Your task to perform on an android device: check the backup settings in the google photos Image 0: 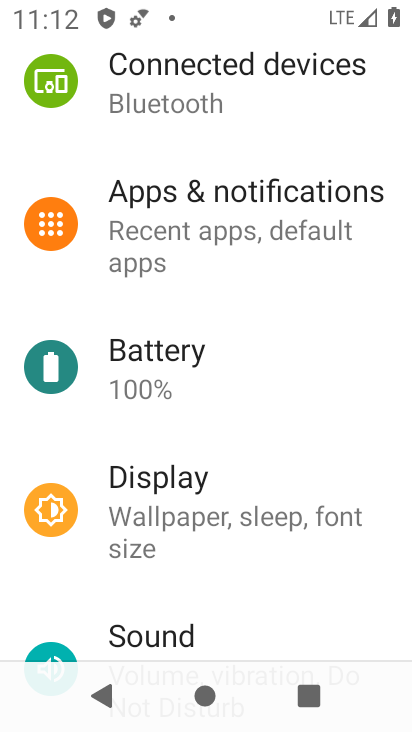
Step 0: press home button
Your task to perform on an android device: check the backup settings in the google photos Image 1: 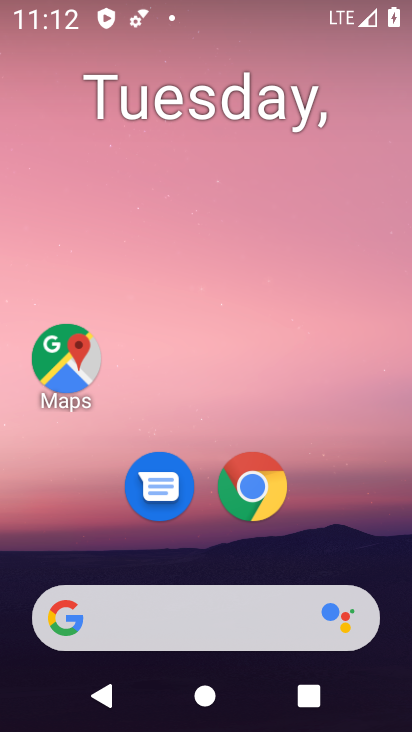
Step 1: drag from (351, 530) to (352, 114)
Your task to perform on an android device: check the backup settings in the google photos Image 2: 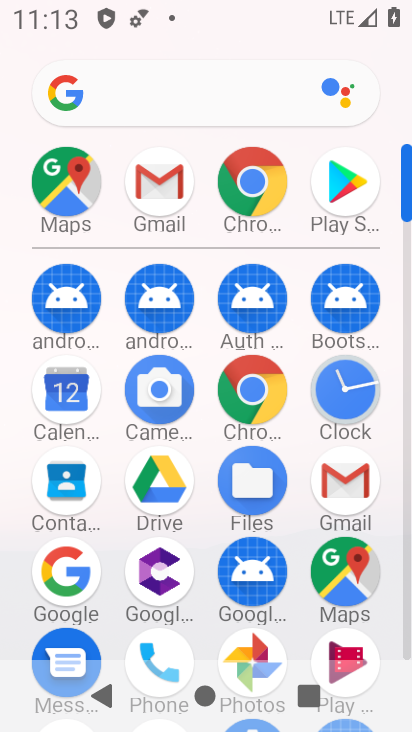
Step 2: drag from (392, 587) to (385, 312)
Your task to perform on an android device: check the backup settings in the google photos Image 3: 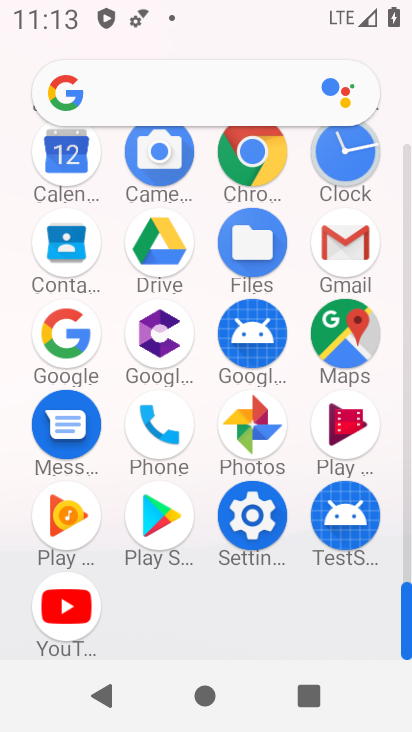
Step 3: click (267, 433)
Your task to perform on an android device: check the backup settings in the google photos Image 4: 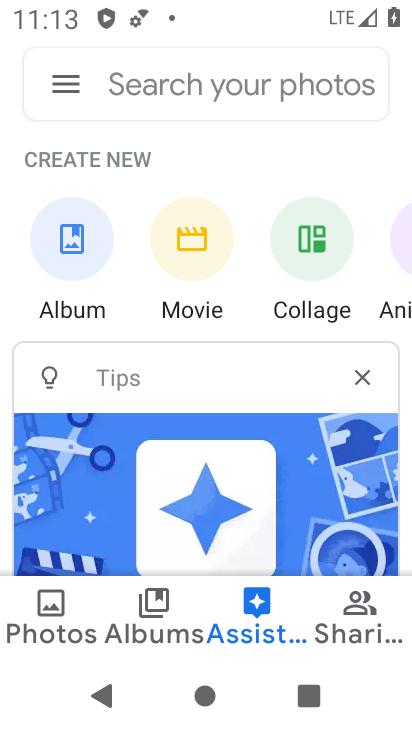
Step 4: click (61, 86)
Your task to perform on an android device: check the backup settings in the google photos Image 5: 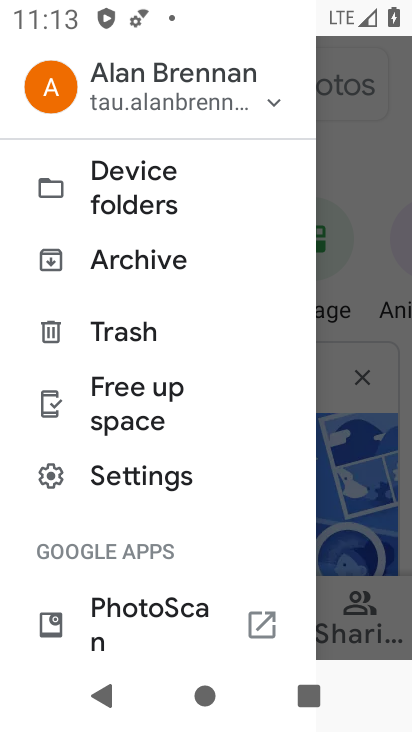
Step 5: drag from (218, 384) to (223, 261)
Your task to perform on an android device: check the backup settings in the google photos Image 6: 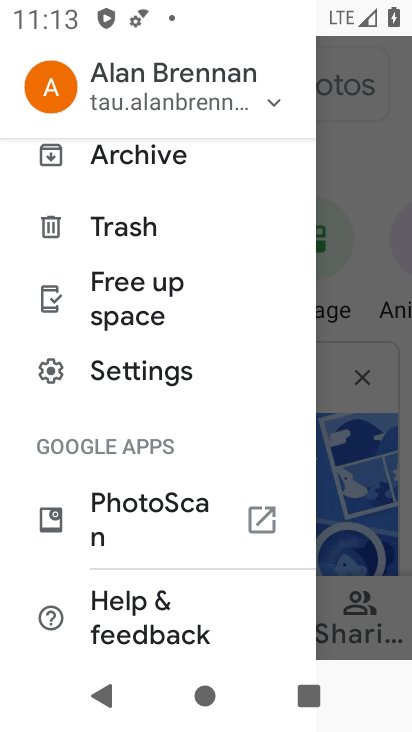
Step 6: drag from (219, 406) to (231, 269)
Your task to perform on an android device: check the backup settings in the google photos Image 7: 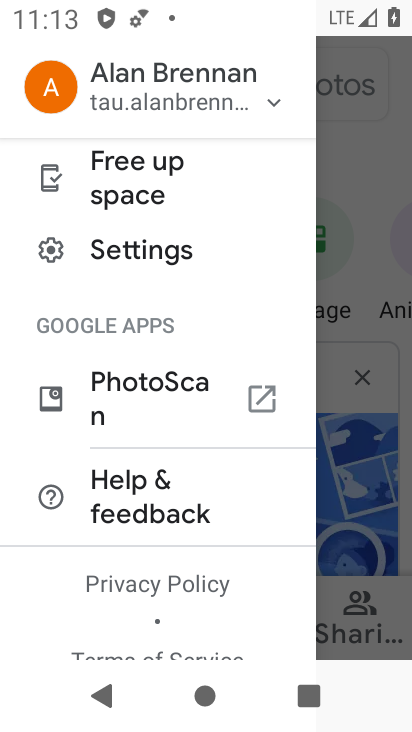
Step 7: drag from (224, 449) to (215, 283)
Your task to perform on an android device: check the backup settings in the google photos Image 8: 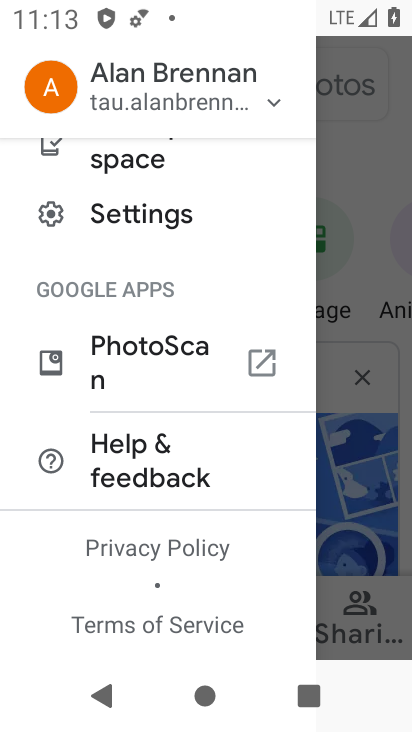
Step 8: click (183, 214)
Your task to perform on an android device: check the backup settings in the google photos Image 9: 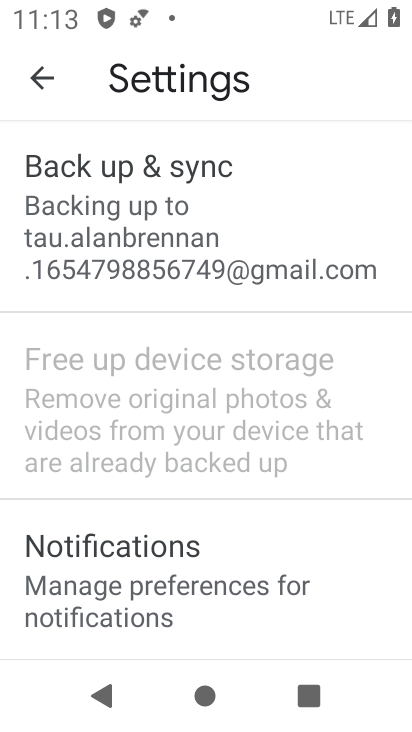
Step 9: click (209, 239)
Your task to perform on an android device: check the backup settings in the google photos Image 10: 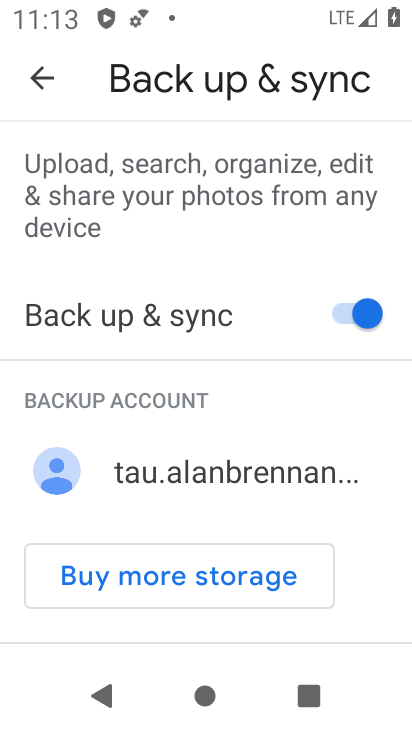
Step 10: task complete